Your task to perform on an android device: Go to Reddit.com Image 0: 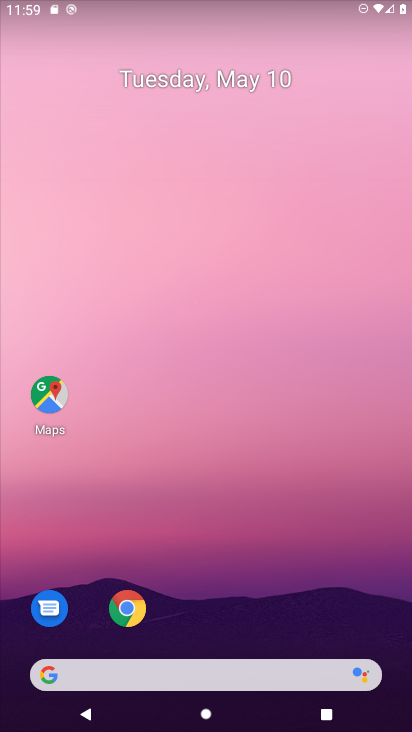
Step 0: click (294, 670)
Your task to perform on an android device: Go to Reddit.com Image 1: 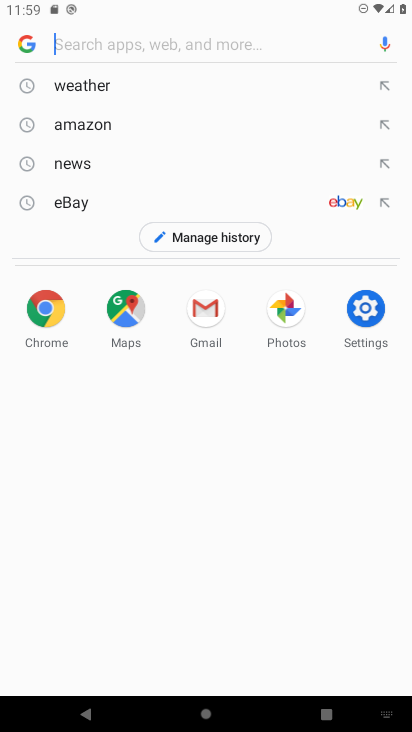
Step 1: type "reddit.com"
Your task to perform on an android device: Go to Reddit.com Image 2: 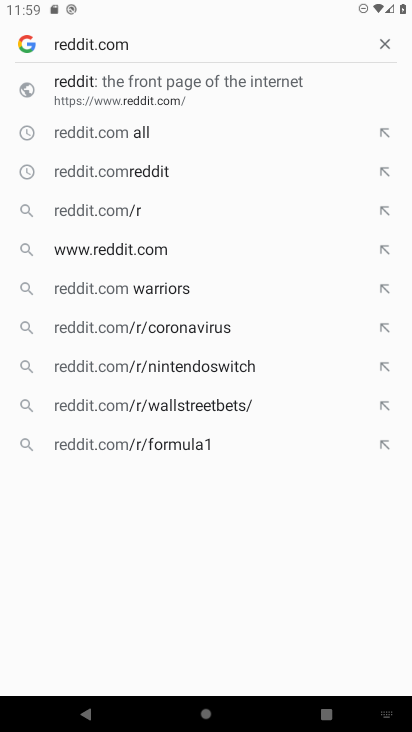
Step 2: click (83, 78)
Your task to perform on an android device: Go to Reddit.com Image 3: 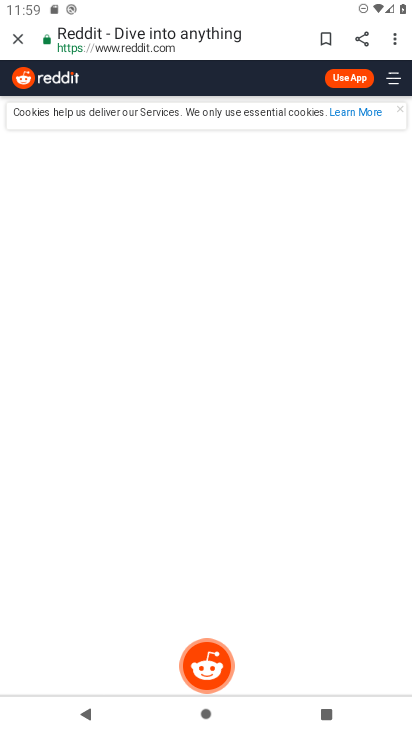
Step 3: task complete